Your task to perform on an android device: turn pop-ups off in chrome Image 0: 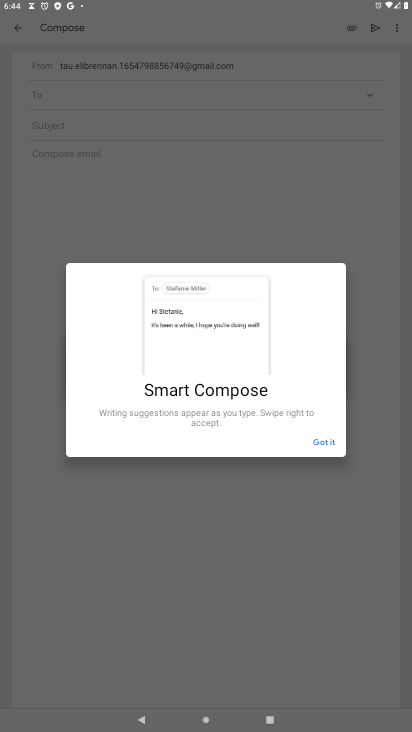
Step 0: press home button
Your task to perform on an android device: turn pop-ups off in chrome Image 1: 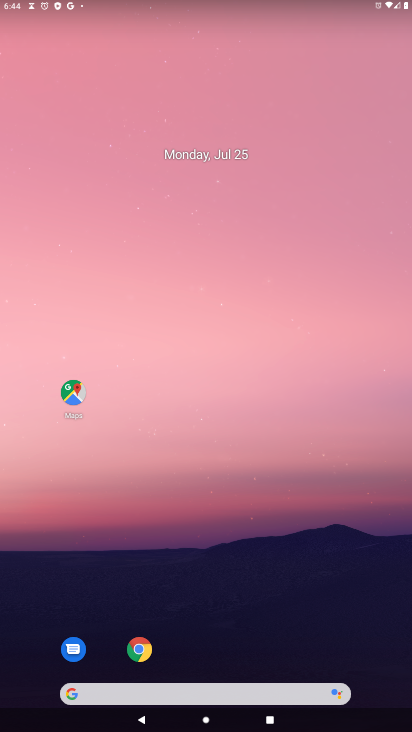
Step 1: drag from (264, 688) to (208, 9)
Your task to perform on an android device: turn pop-ups off in chrome Image 2: 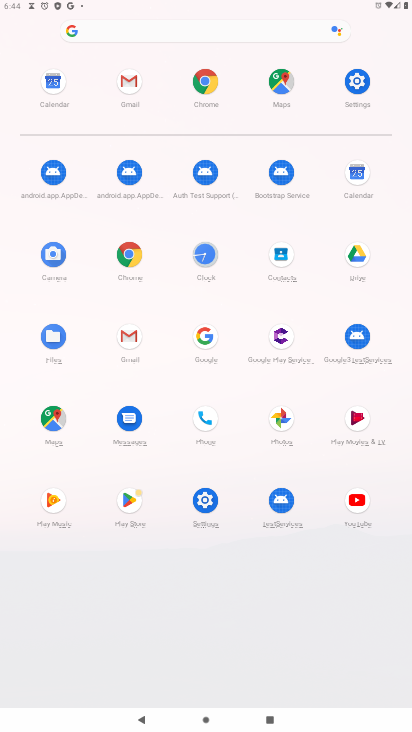
Step 2: click (129, 244)
Your task to perform on an android device: turn pop-ups off in chrome Image 3: 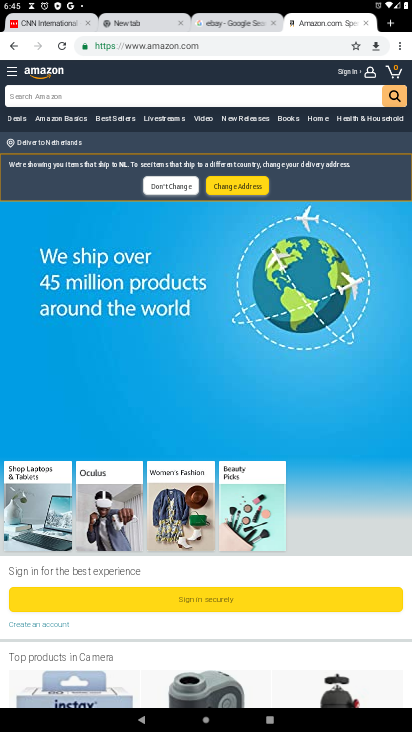
Step 3: drag from (401, 43) to (343, 313)
Your task to perform on an android device: turn pop-ups off in chrome Image 4: 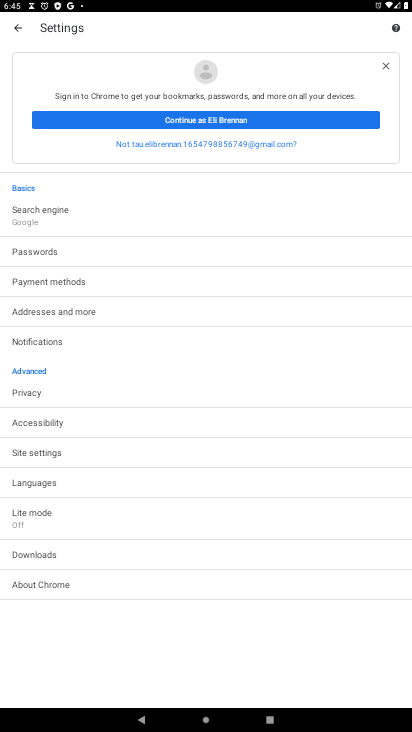
Step 4: click (83, 445)
Your task to perform on an android device: turn pop-ups off in chrome Image 5: 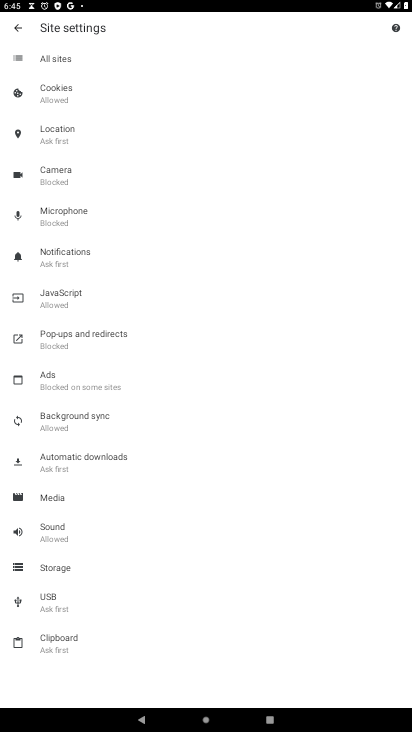
Step 5: click (100, 339)
Your task to perform on an android device: turn pop-ups off in chrome Image 6: 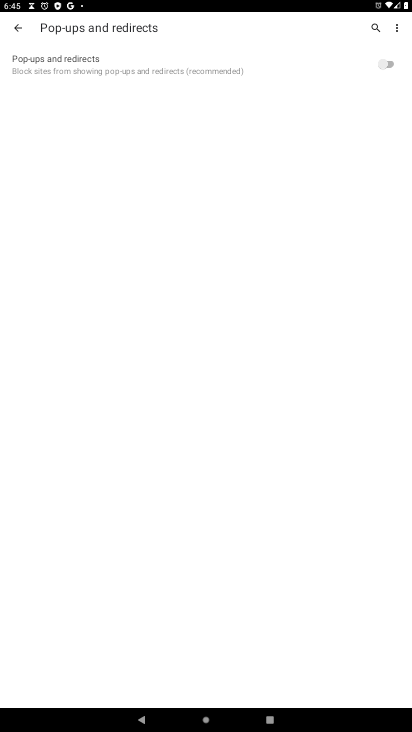
Step 6: task complete